Your task to perform on an android device: turn off notifications settings in the gmail app Image 0: 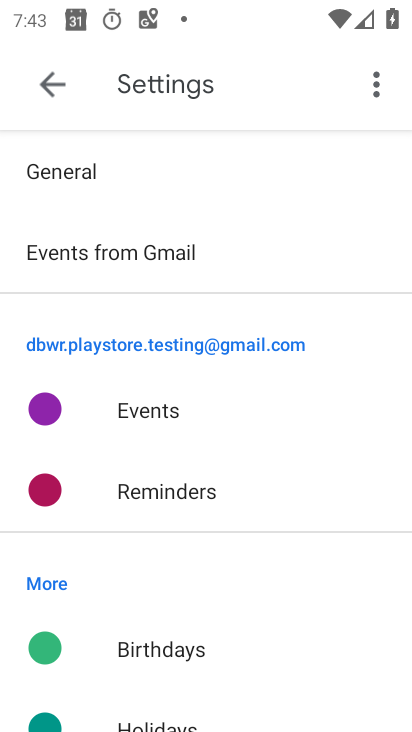
Step 0: press home button
Your task to perform on an android device: turn off notifications settings in the gmail app Image 1: 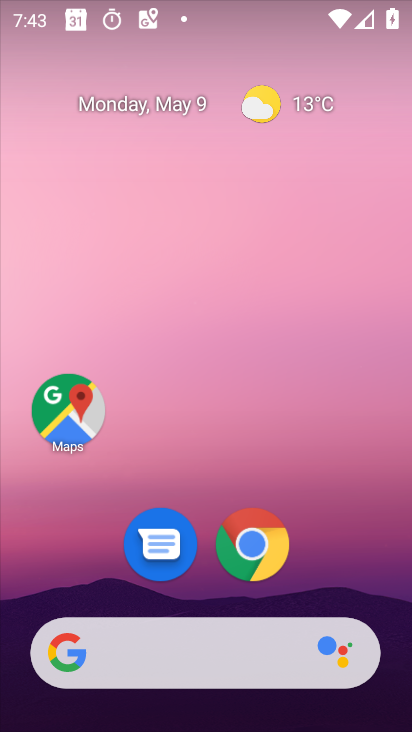
Step 1: drag from (368, 520) to (314, 2)
Your task to perform on an android device: turn off notifications settings in the gmail app Image 2: 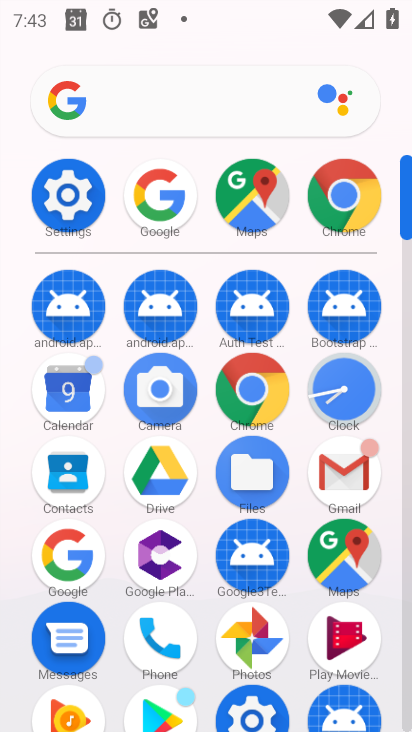
Step 2: click (370, 472)
Your task to perform on an android device: turn off notifications settings in the gmail app Image 3: 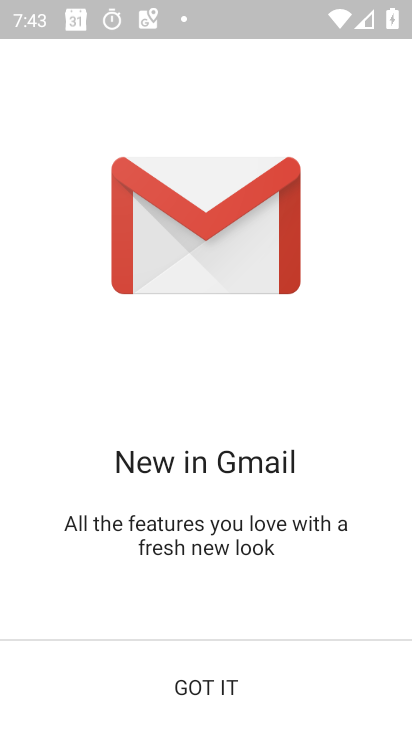
Step 3: click (204, 673)
Your task to perform on an android device: turn off notifications settings in the gmail app Image 4: 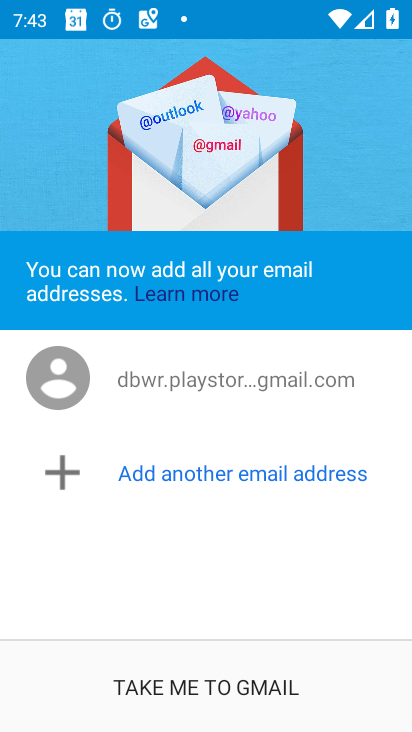
Step 4: click (204, 672)
Your task to perform on an android device: turn off notifications settings in the gmail app Image 5: 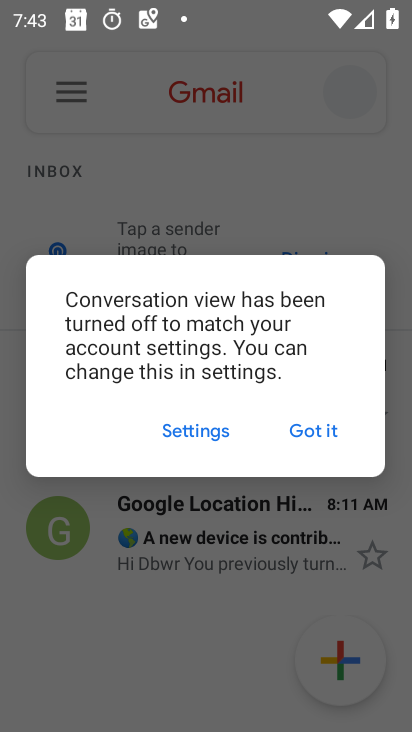
Step 5: click (305, 425)
Your task to perform on an android device: turn off notifications settings in the gmail app Image 6: 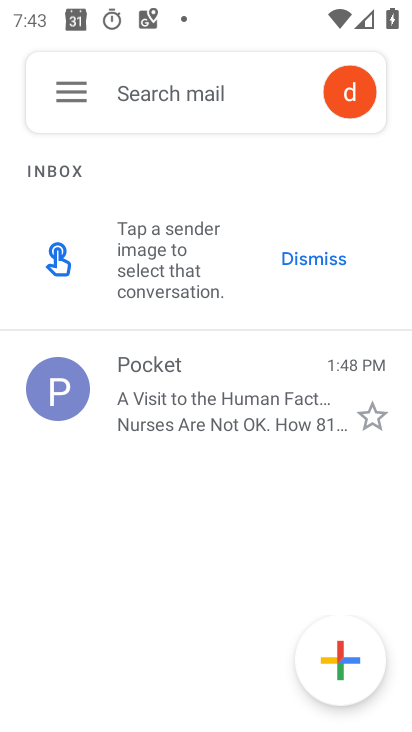
Step 6: click (53, 82)
Your task to perform on an android device: turn off notifications settings in the gmail app Image 7: 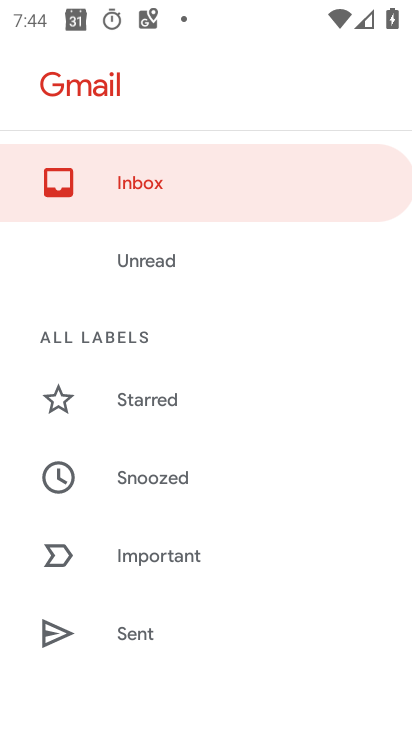
Step 7: drag from (219, 586) to (199, 237)
Your task to perform on an android device: turn off notifications settings in the gmail app Image 8: 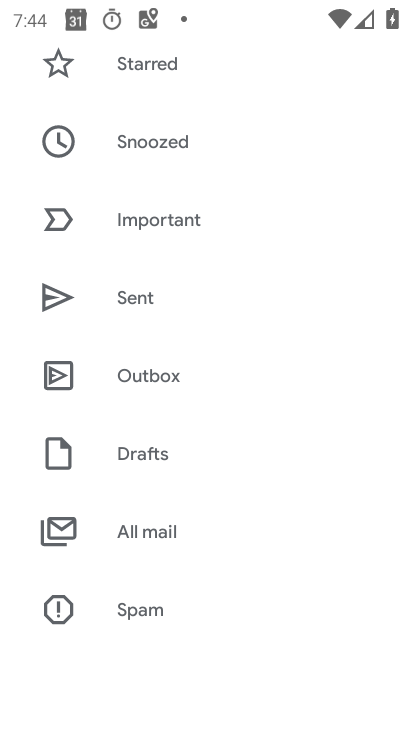
Step 8: drag from (192, 570) to (222, 126)
Your task to perform on an android device: turn off notifications settings in the gmail app Image 9: 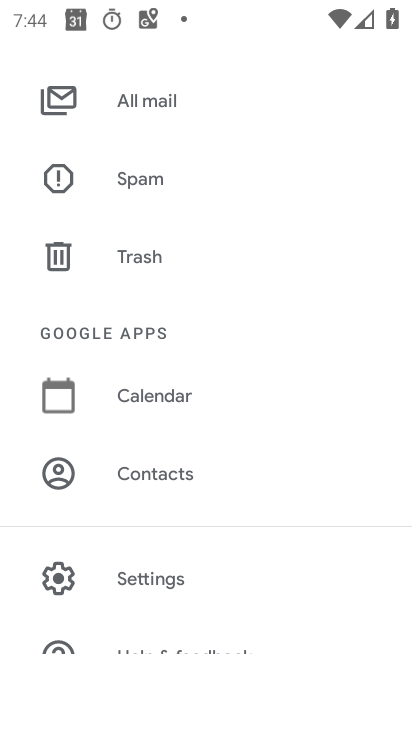
Step 9: click (183, 583)
Your task to perform on an android device: turn off notifications settings in the gmail app Image 10: 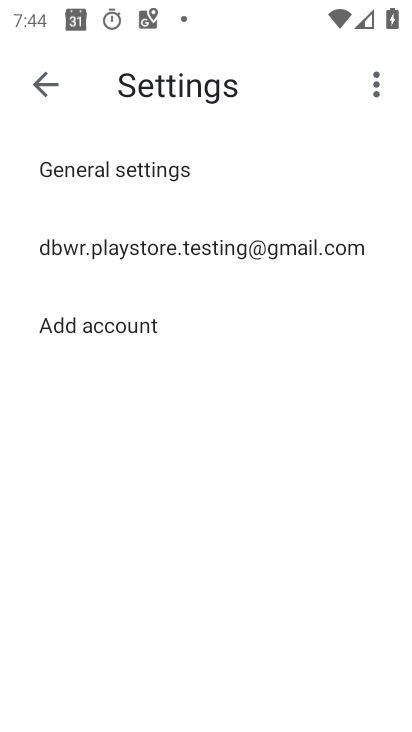
Step 10: click (154, 257)
Your task to perform on an android device: turn off notifications settings in the gmail app Image 11: 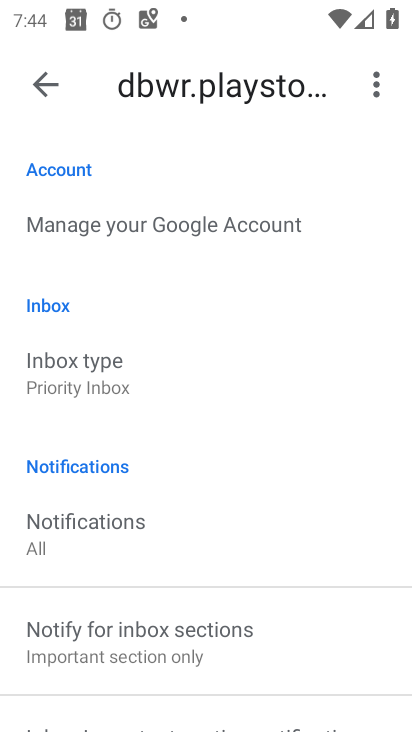
Step 11: drag from (237, 504) to (290, 6)
Your task to perform on an android device: turn off notifications settings in the gmail app Image 12: 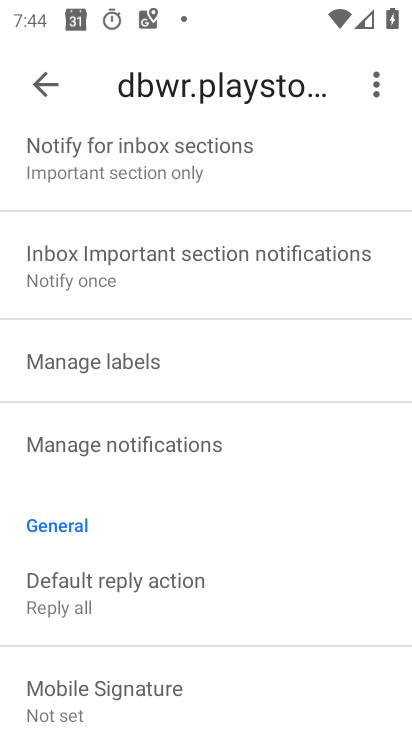
Step 12: drag from (222, 222) to (237, 616)
Your task to perform on an android device: turn off notifications settings in the gmail app Image 13: 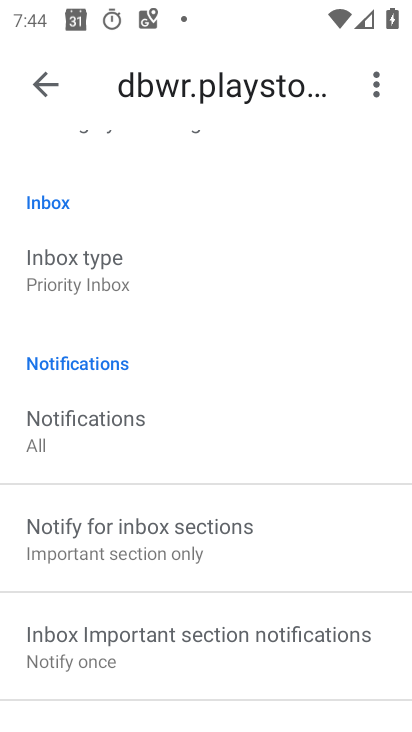
Step 13: click (81, 434)
Your task to perform on an android device: turn off notifications settings in the gmail app Image 14: 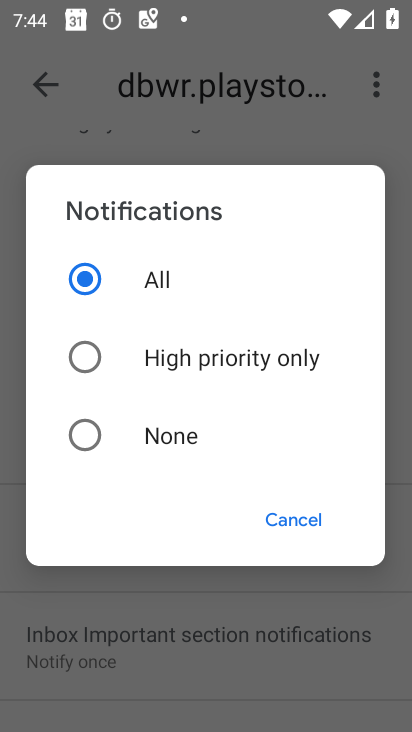
Step 14: click (78, 370)
Your task to perform on an android device: turn off notifications settings in the gmail app Image 15: 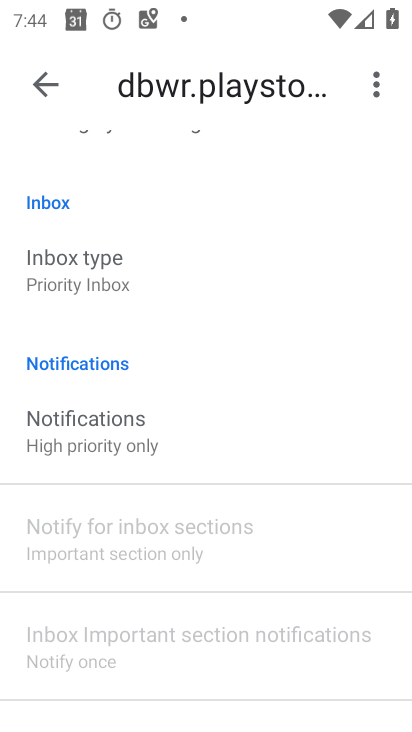
Step 15: task complete